Your task to perform on an android device: turn on the 24-hour format for clock Image 0: 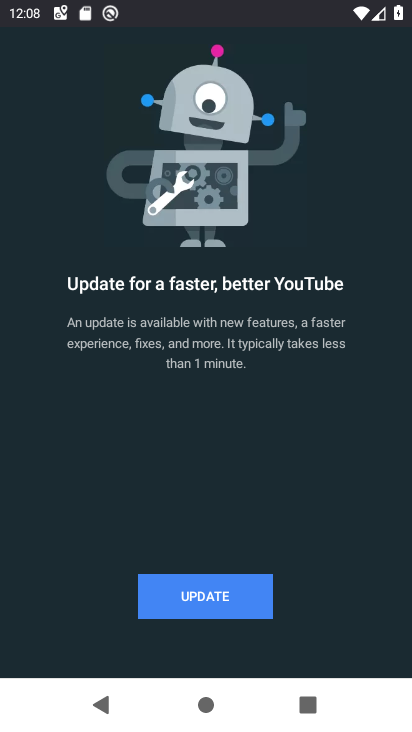
Step 0: press home button
Your task to perform on an android device: turn on the 24-hour format for clock Image 1: 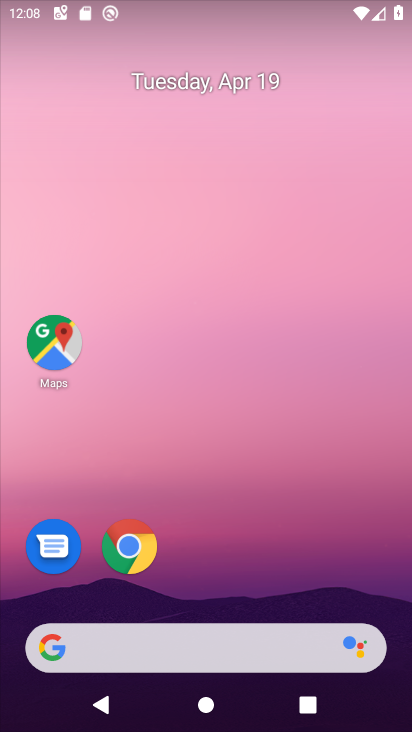
Step 1: drag from (219, 584) to (286, 41)
Your task to perform on an android device: turn on the 24-hour format for clock Image 2: 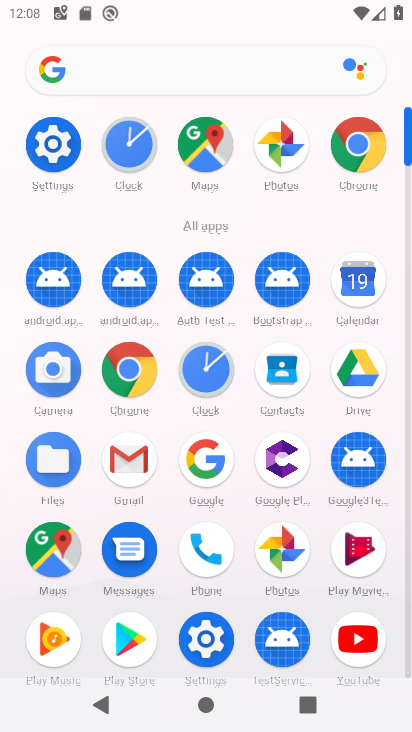
Step 2: click (209, 359)
Your task to perform on an android device: turn on the 24-hour format for clock Image 3: 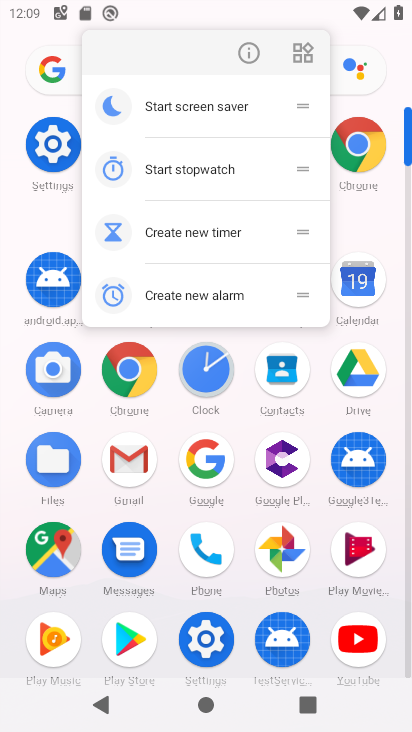
Step 3: click (210, 373)
Your task to perform on an android device: turn on the 24-hour format for clock Image 4: 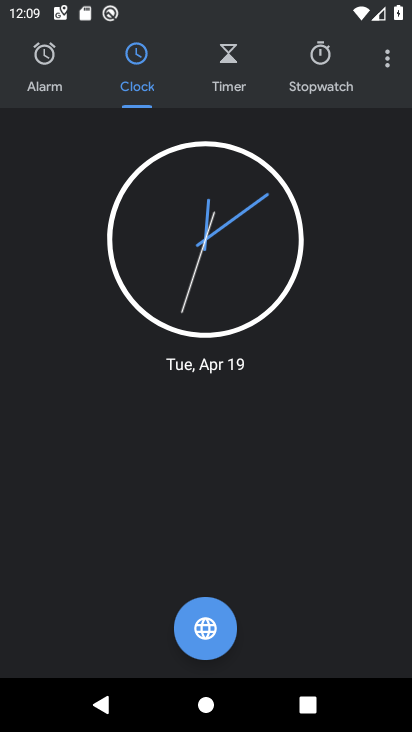
Step 4: click (387, 58)
Your task to perform on an android device: turn on the 24-hour format for clock Image 5: 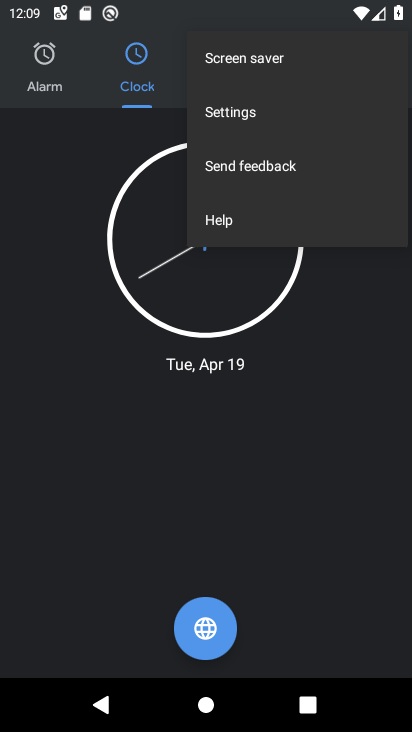
Step 5: click (276, 115)
Your task to perform on an android device: turn on the 24-hour format for clock Image 6: 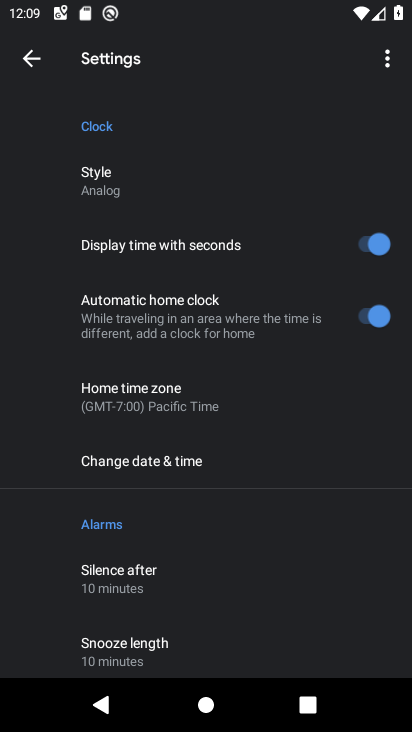
Step 6: click (225, 466)
Your task to perform on an android device: turn on the 24-hour format for clock Image 7: 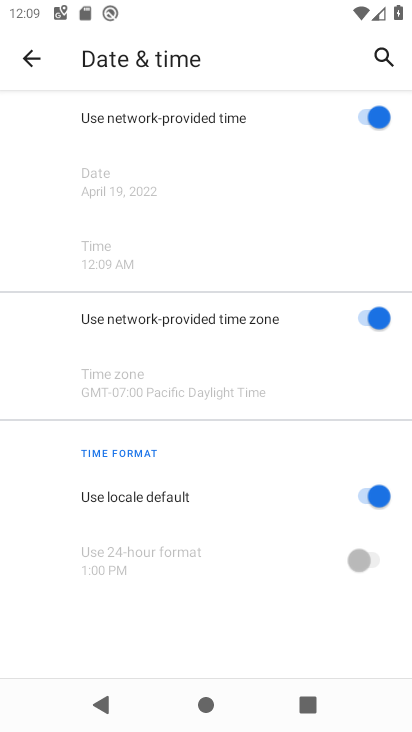
Step 7: drag from (251, 595) to (280, 134)
Your task to perform on an android device: turn on the 24-hour format for clock Image 8: 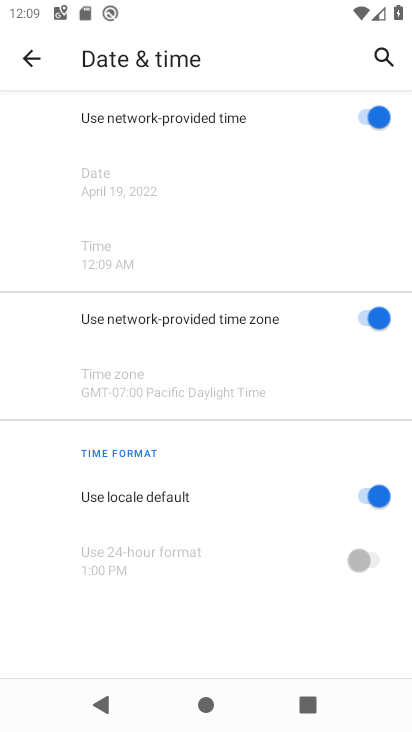
Step 8: drag from (234, 583) to (258, 283)
Your task to perform on an android device: turn on the 24-hour format for clock Image 9: 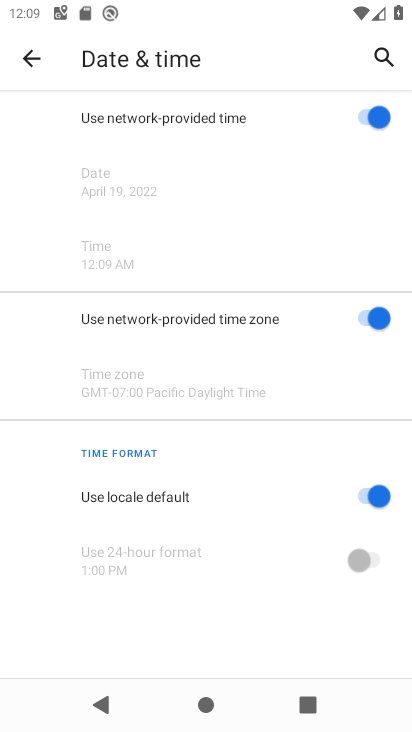
Step 9: click (361, 490)
Your task to perform on an android device: turn on the 24-hour format for clock Image 10: 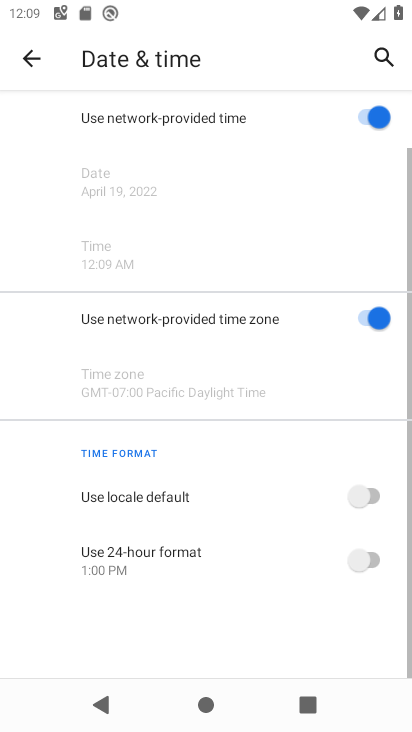
Step 10: click (371, 555)
Your task to perform on an android device: turn on the 24-hour format for clock Image 11: 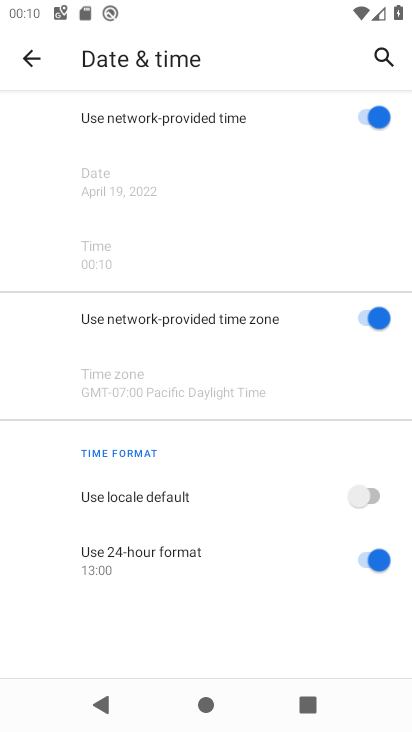
Step 11: task complete